Your task to perform on an android device: Show me recent news Image 0: 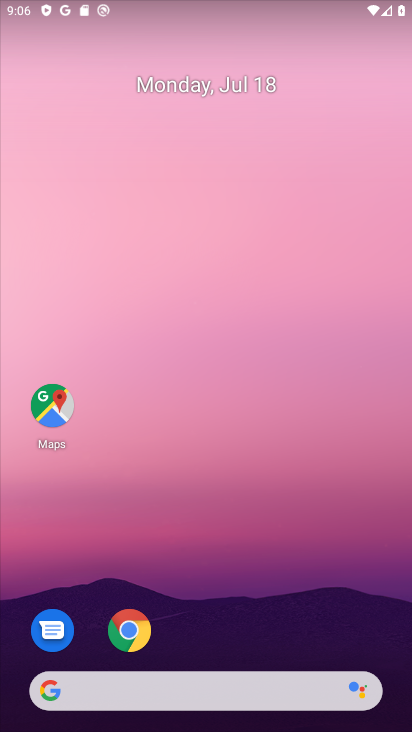
Step 0: drag from (328, 518) to (253, 13)
Your task to perform on an android device: Show me recent news Image 1: 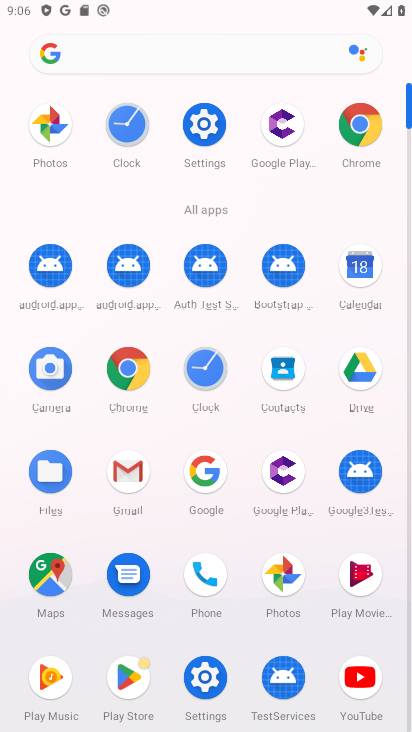
Step 1: click (206, 491)
Your task to perform on an android device: Show me recent news Image 2: 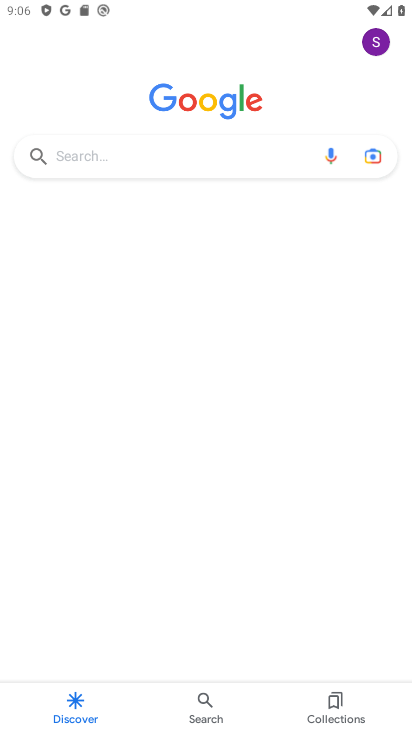
Step 2: click (141, 157)
Your task to perform on an android device: Show me recent news Image 3: 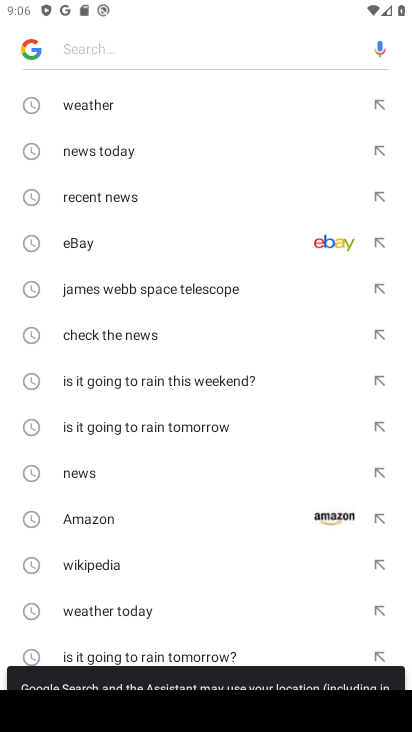
Step 3: click (100, 198)
Your task to perform on an android device: Show me recent news Image 4: 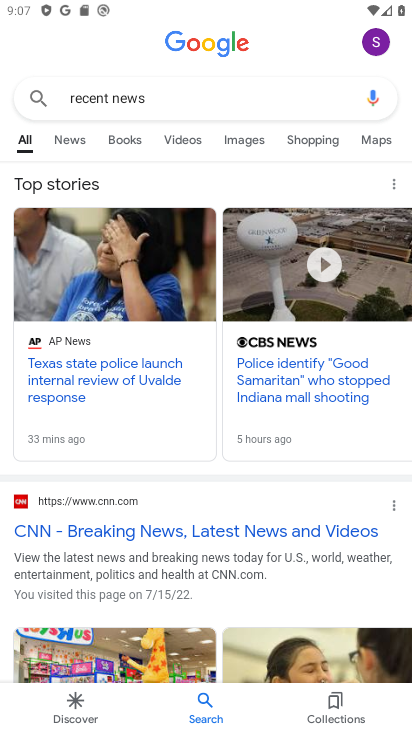
Step 4: task complete